Your task to perform on an android device: Do I have any events this weekend? Image 0: 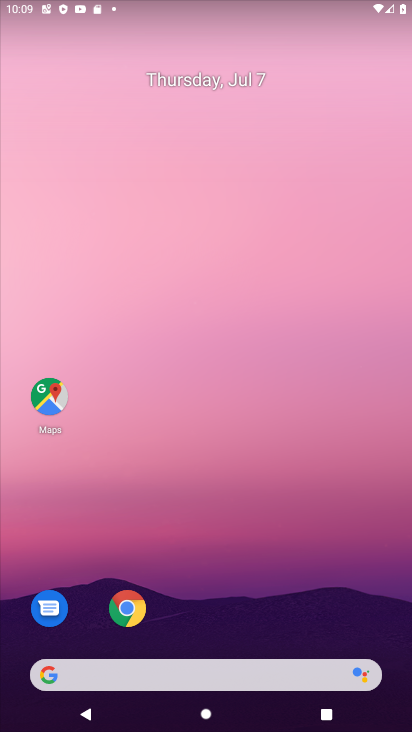
Step 0: drag from (229, 607) to (266, 81)
Your task to perform on an android device: Do I have any events this weekend? Image 1: 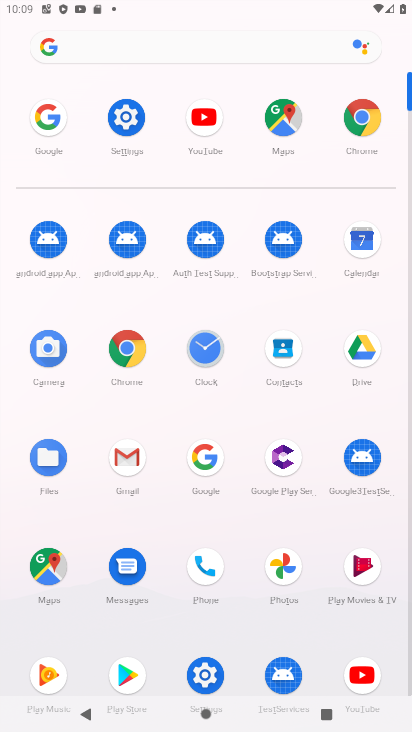
Step 1: click (364, 229)
Your task to perform on an android device: Do I have any events this weekend? Image 2: 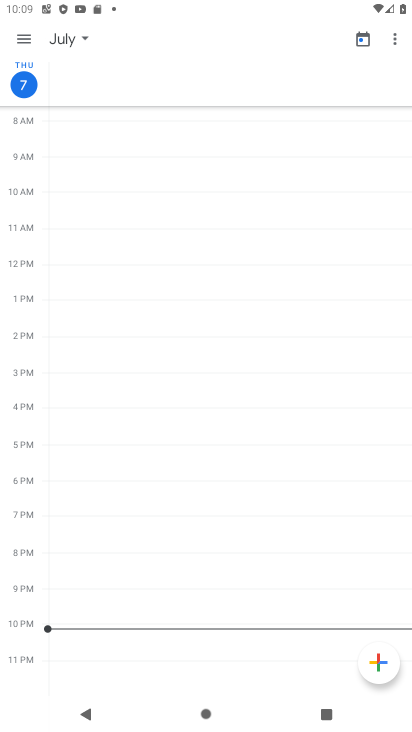
Step 2: click (78, 37)
Your task to perform on an android device: Do I have any events this weekend? Image 3: 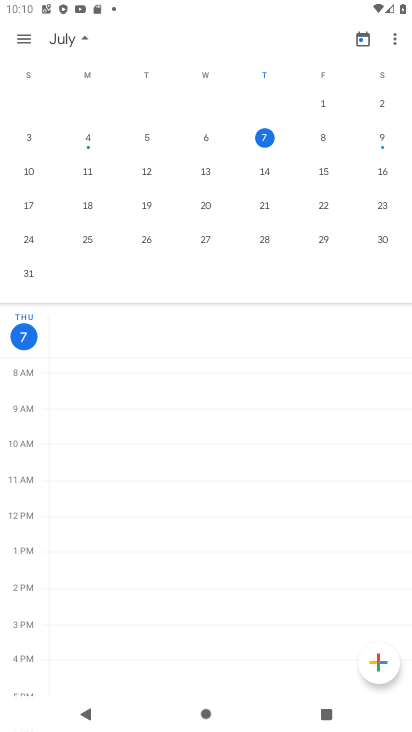
Step 3: click (326, 138)
Your task to perform on an android device: Do I have any events this weekend? Image 4: 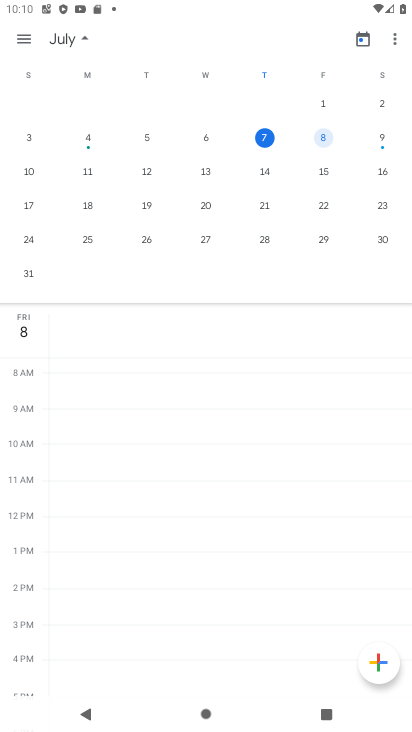
Step 4: task complete